Your task to perform on an android device: Add jbl charge 4 to the cart on target Image 0: 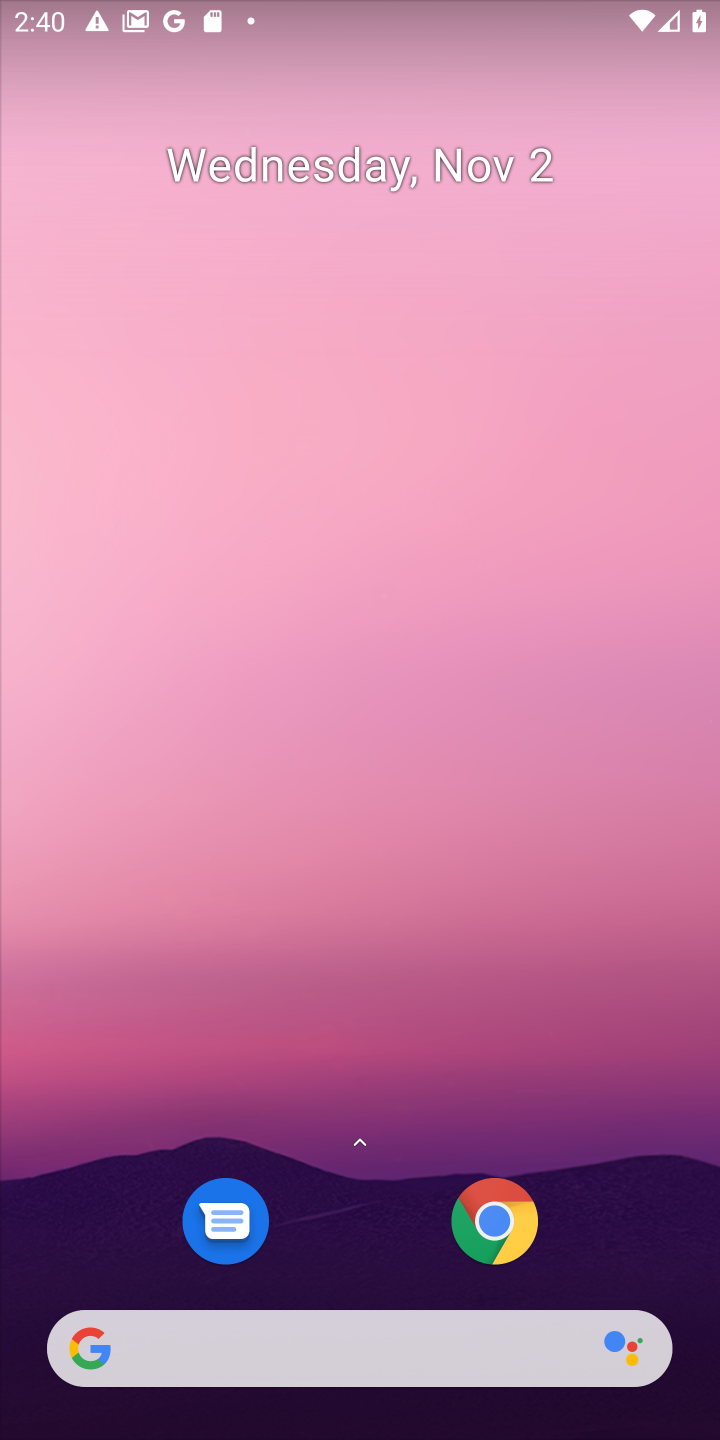
Step 0: click (419, 1381)
Your task to perform on an android device: Add jbl charge 4 to the cart on target Image 1: 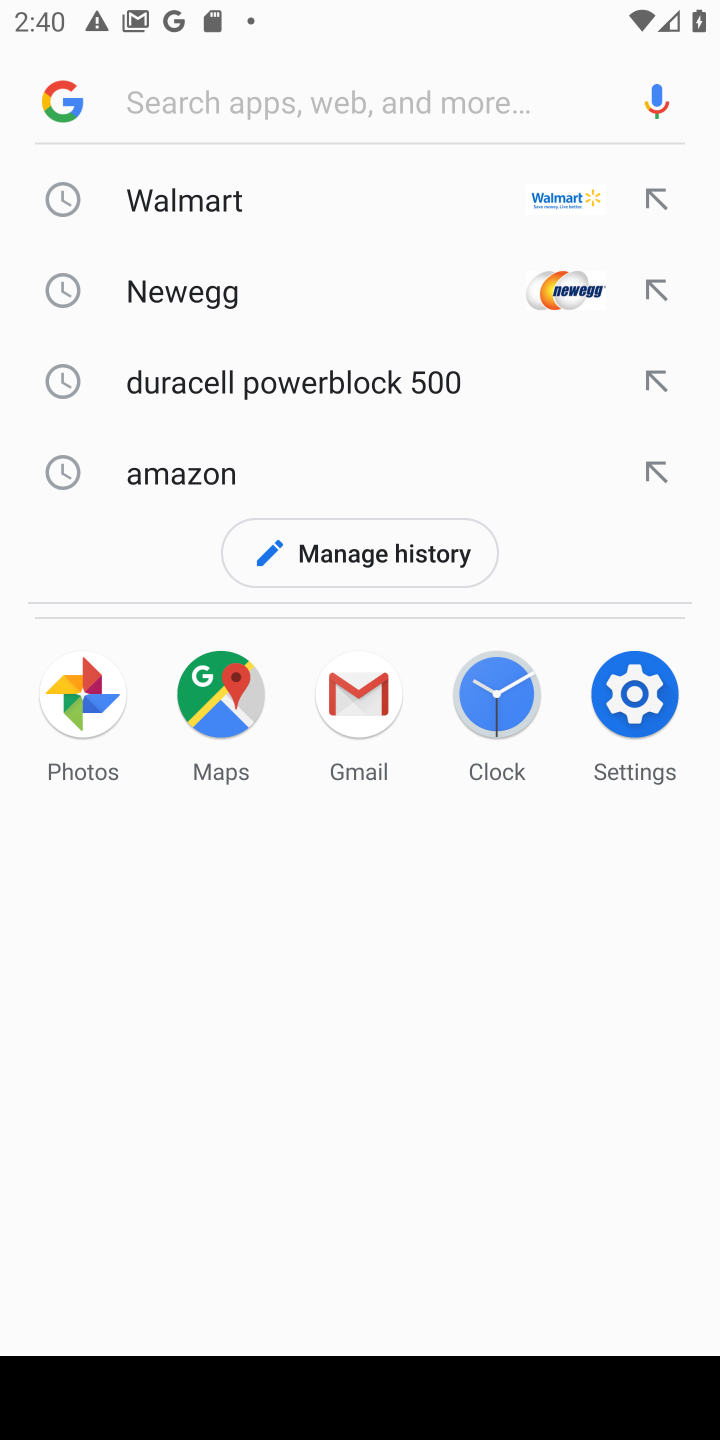
Step 1: type "target"
Your task to perform on an android device: Add jbl charge 4 to the cart on target Image 2: 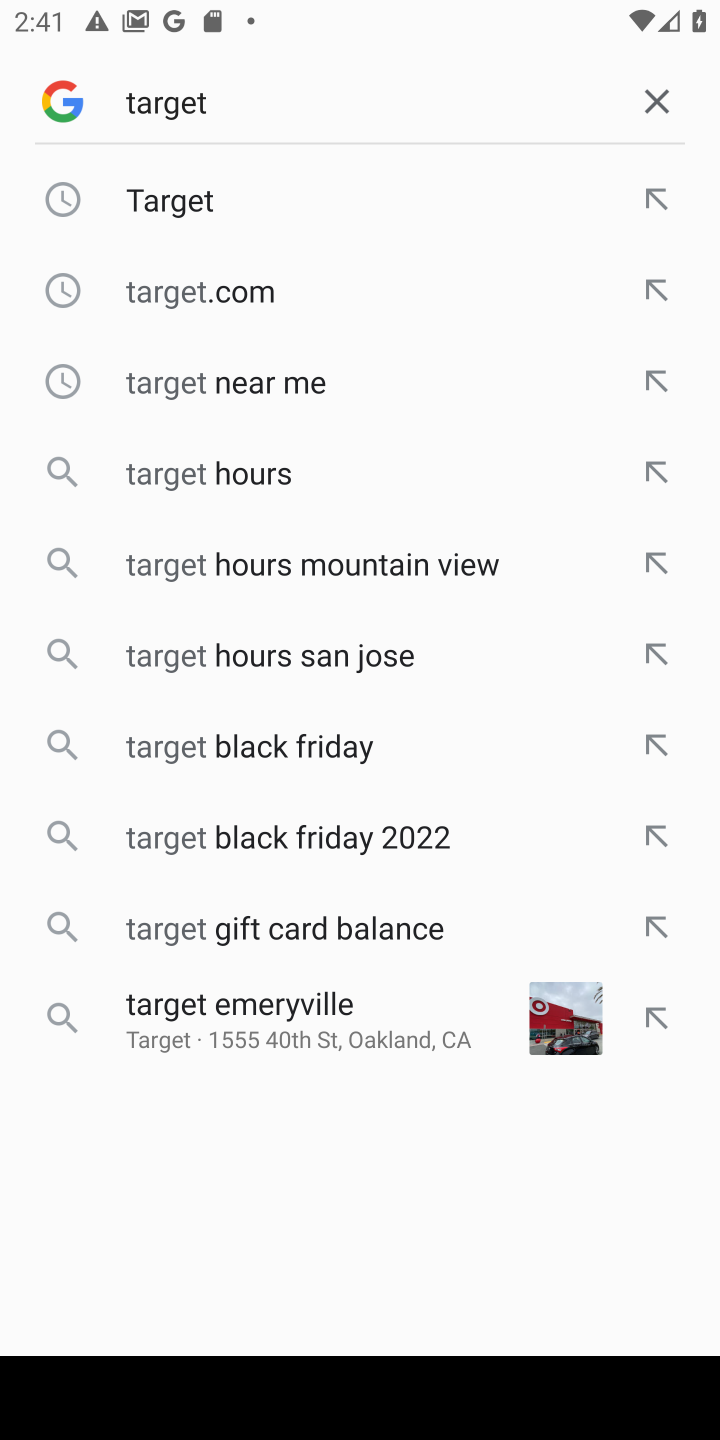
Step 2: click (442, 262)
Your task to perform on an android device: Add jbl charge 4 to the cart on target Image 3: 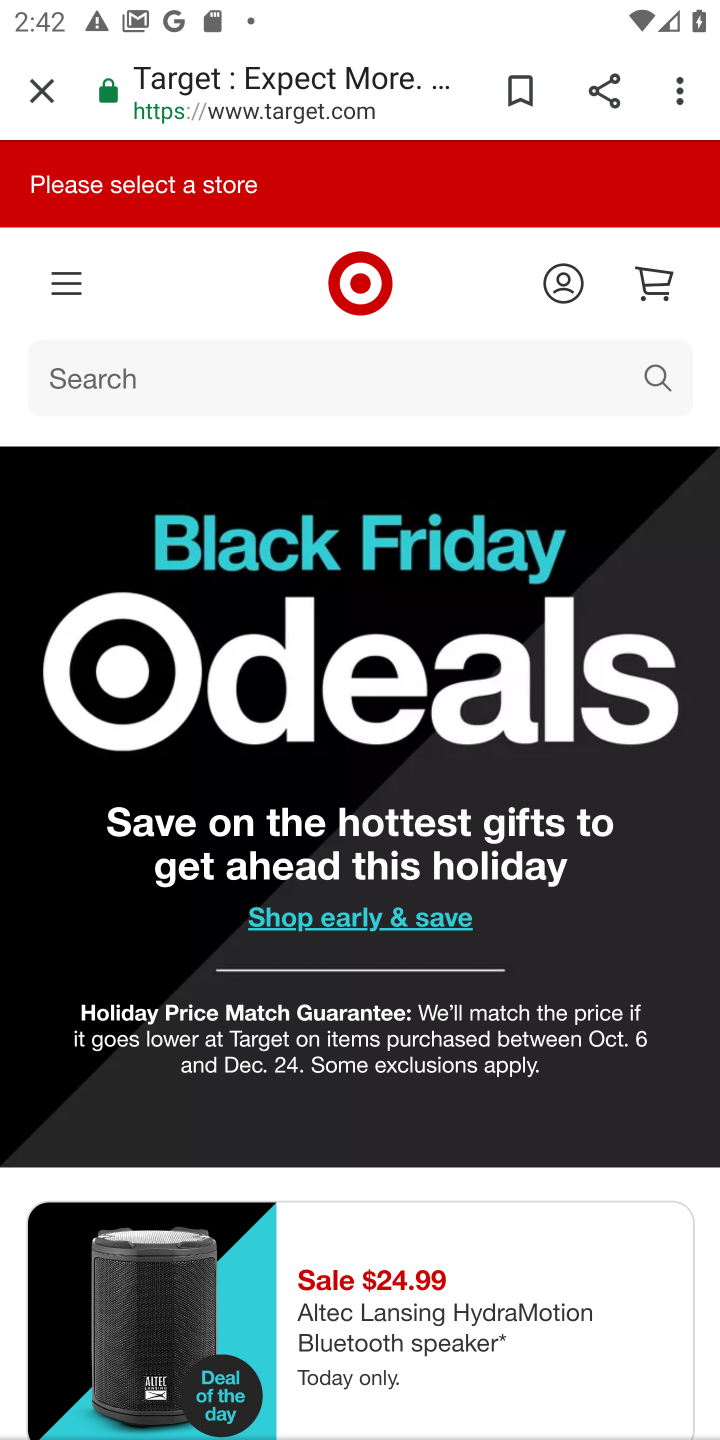
Step 3: click (641, 360)
Your task to perform on an android device: Add jbl charge 4 to the cart on target Image 4: 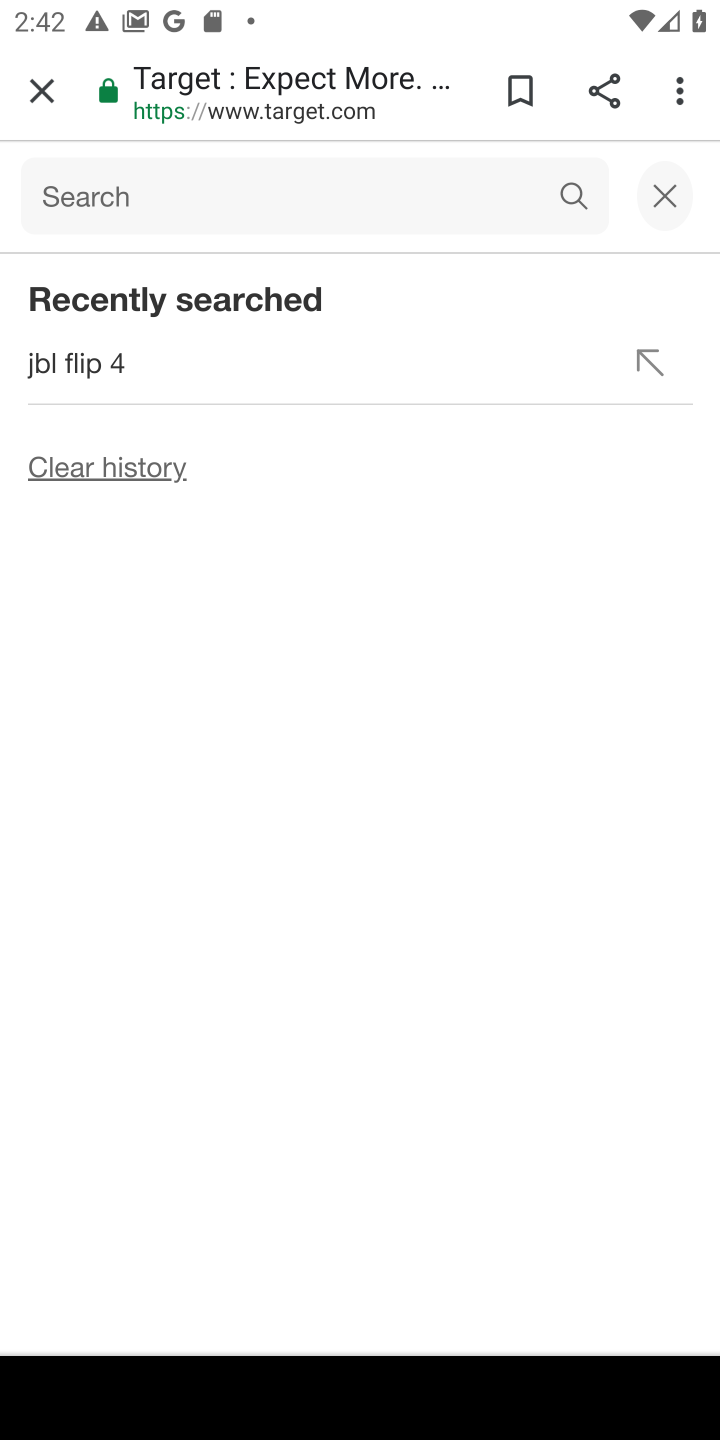
Step 4: type "jbl flip 4"
Your task to perform on an android device: Add jbl charge 4 to the cart on target Image 5: 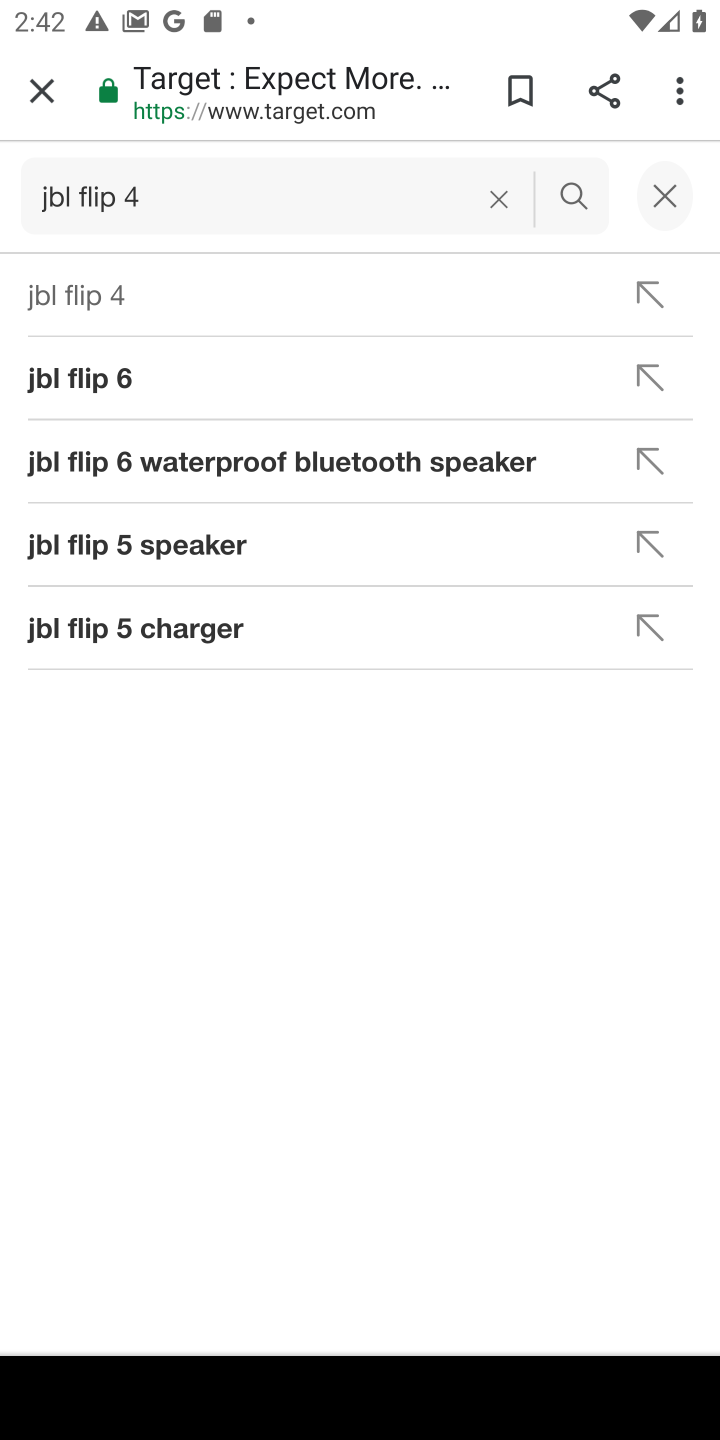
Step 5: click (279, 284)
Your task to perform on an android device: Add jbl charge 4 to the cart on target Image 6: 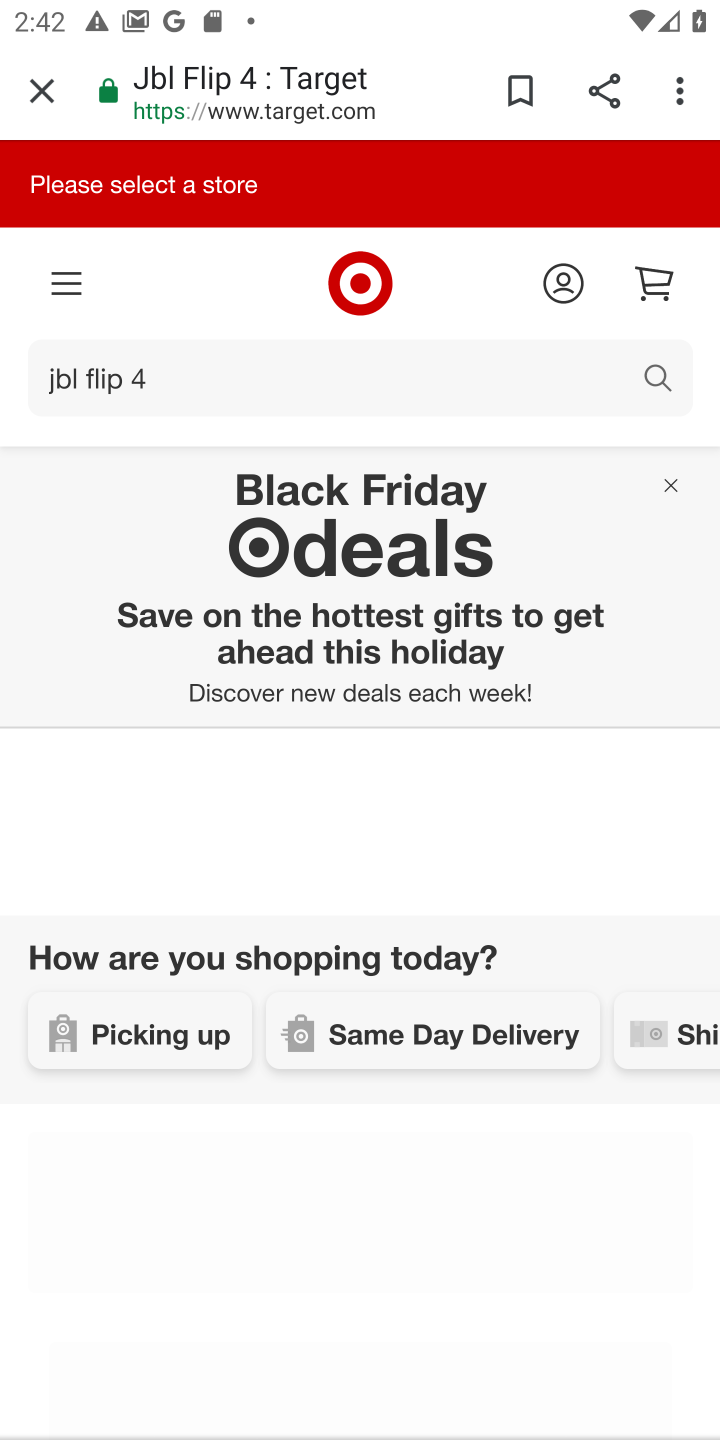
Step 6: task complete